Your task to perform on an android device: show emergency info Image 0: 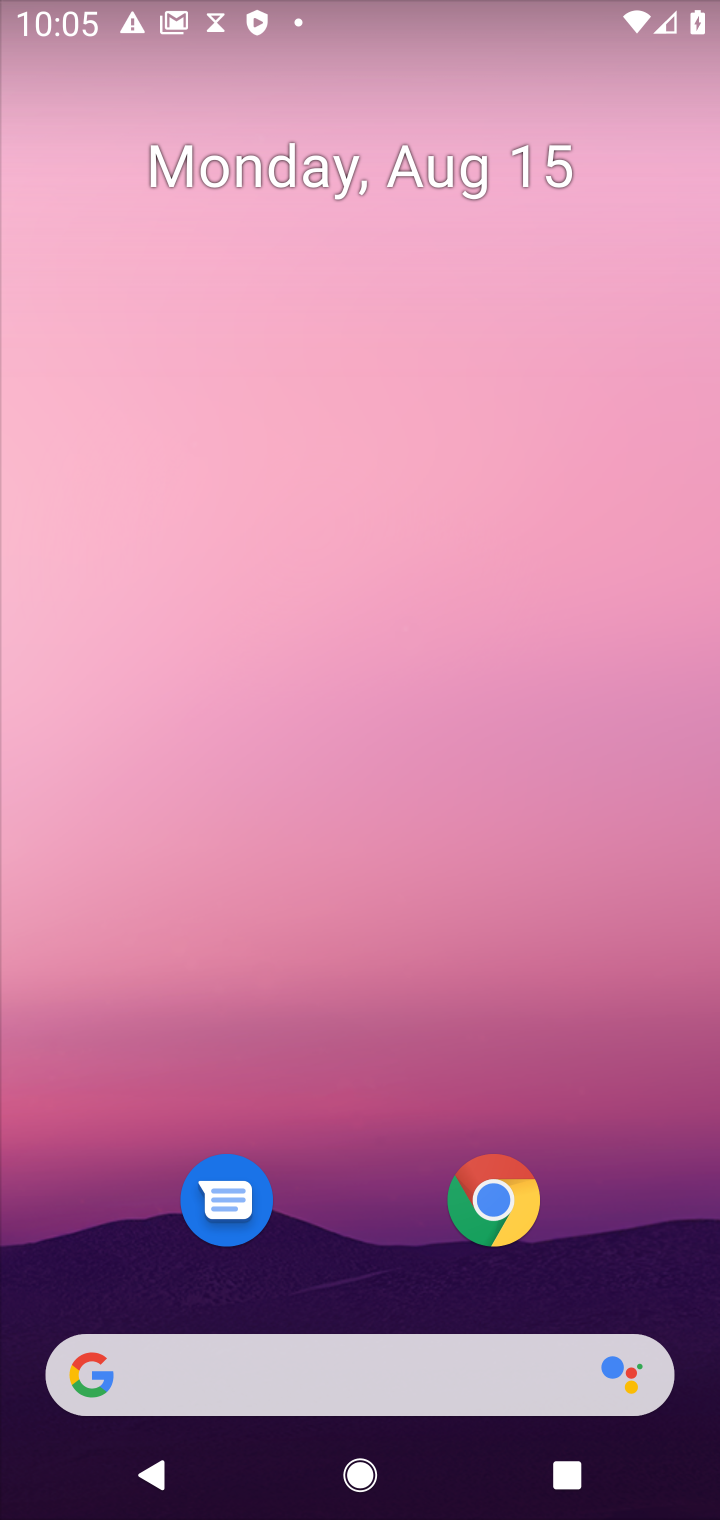
Step 0: drag from (364, 1258) to (386, 394)
Your task to perform on an android device: show emergency info Image 1: 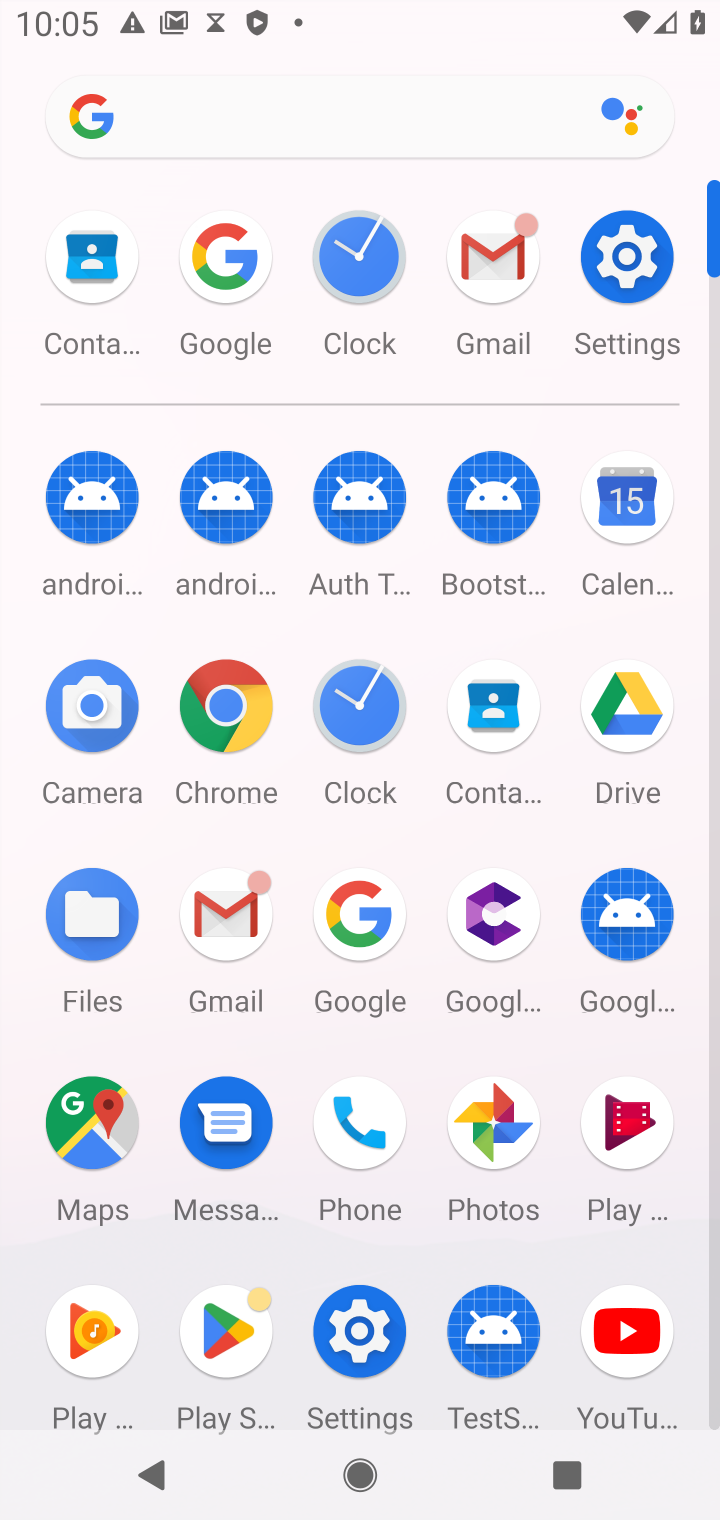
Step 1: click (633, 299)
Your task to perform on an android device: show emergency info Image 2: 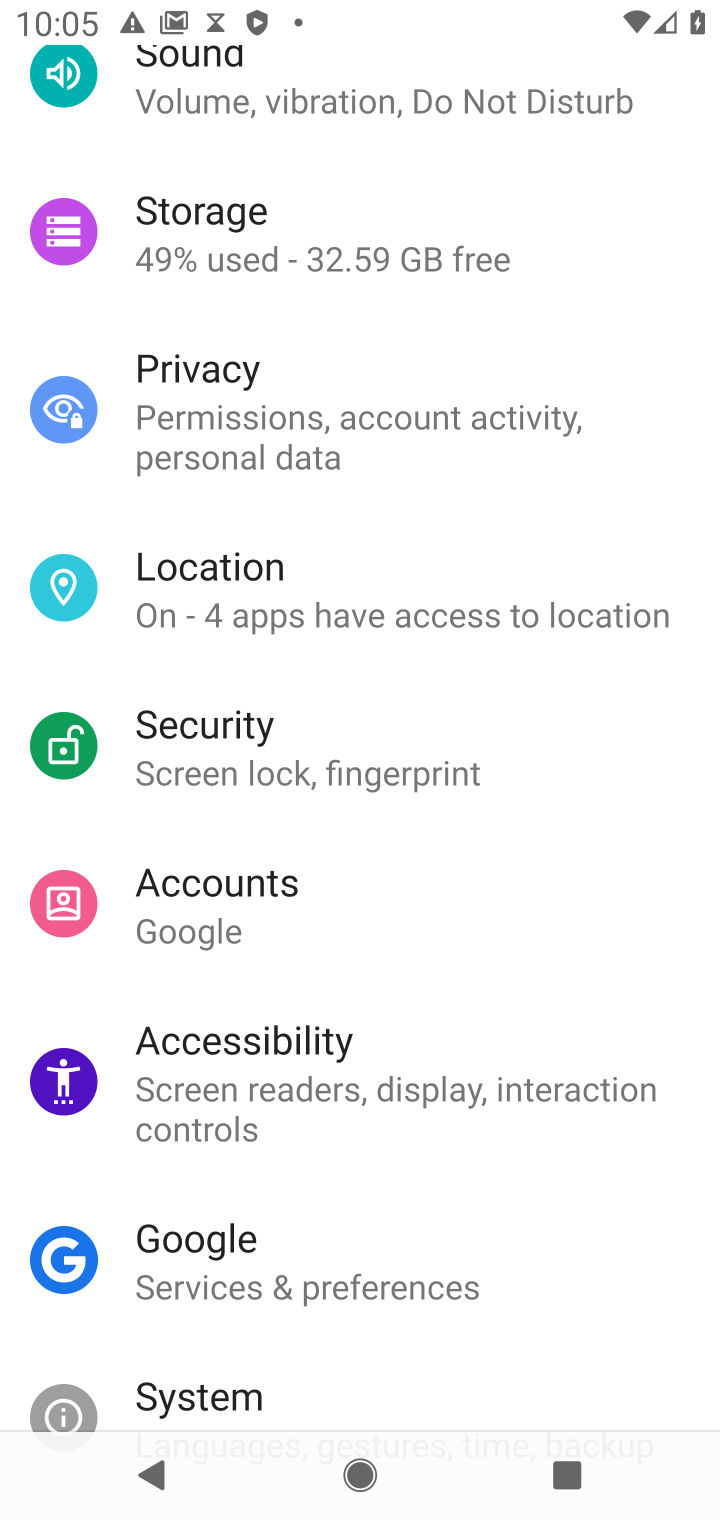
Step 2: drag from (318, 1320) to (318, 454)
Your task to perform on an android device: show emergency info Image 3: 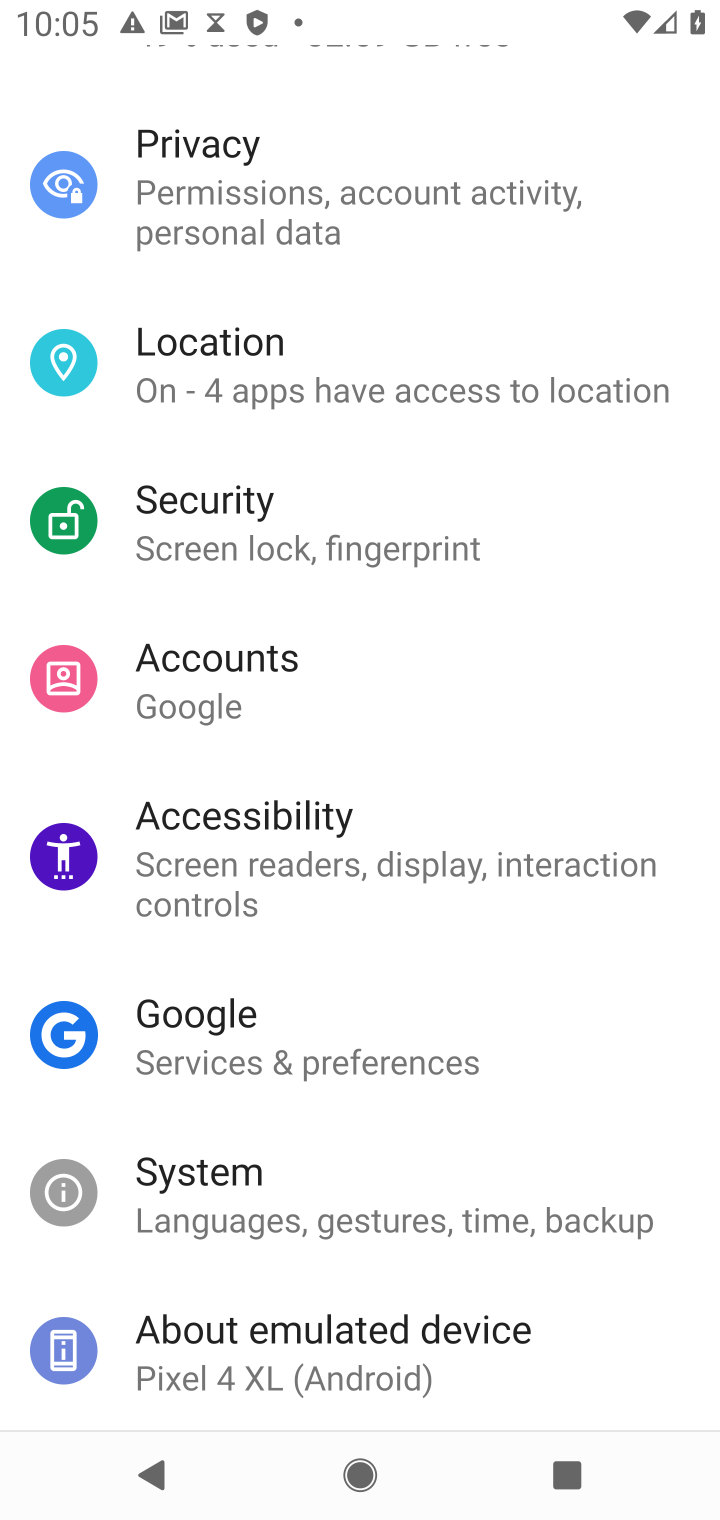
Step 3: click (329, 1330)
Your task to perform on an android device: show emergency info Image 4: 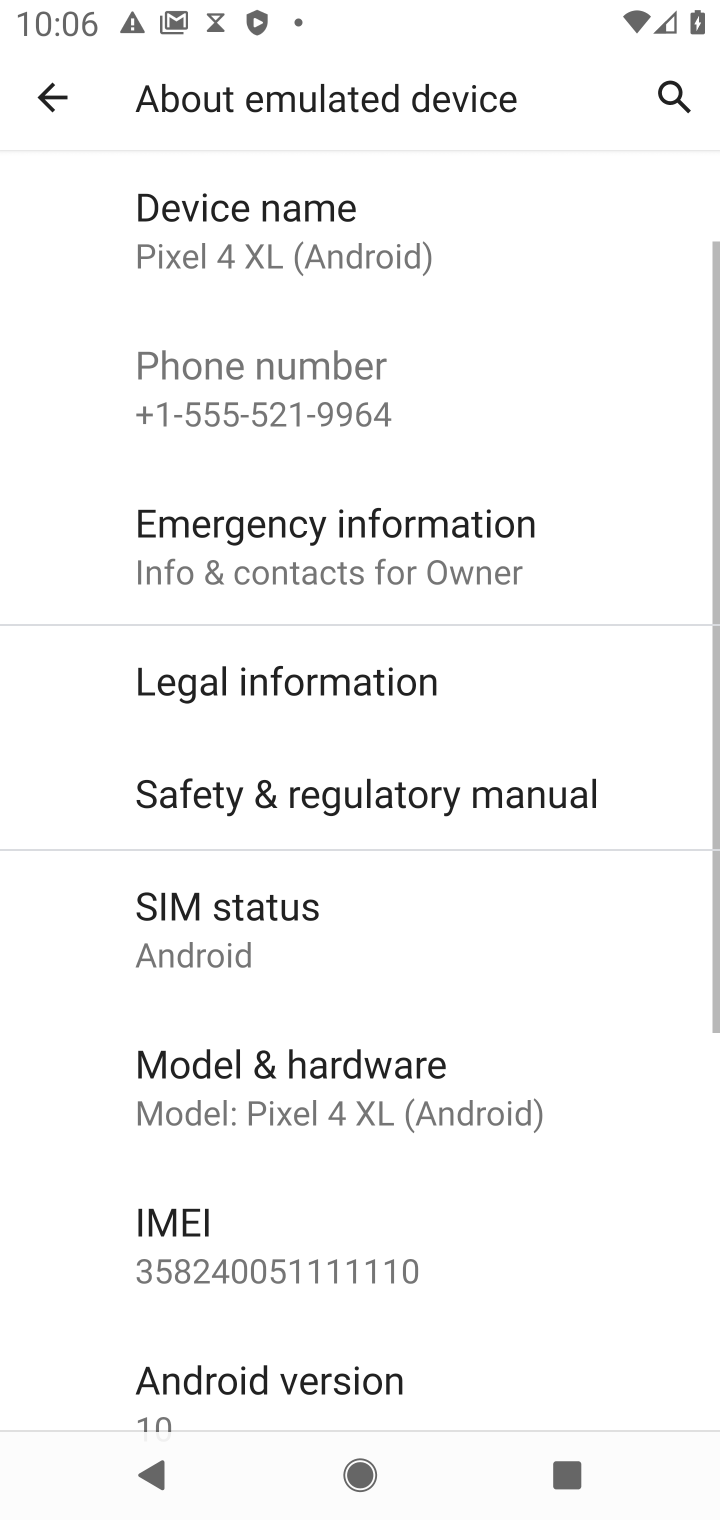
Step 4: click (355, 564)
Your task to perform on an android device: show emergency info Image 5: 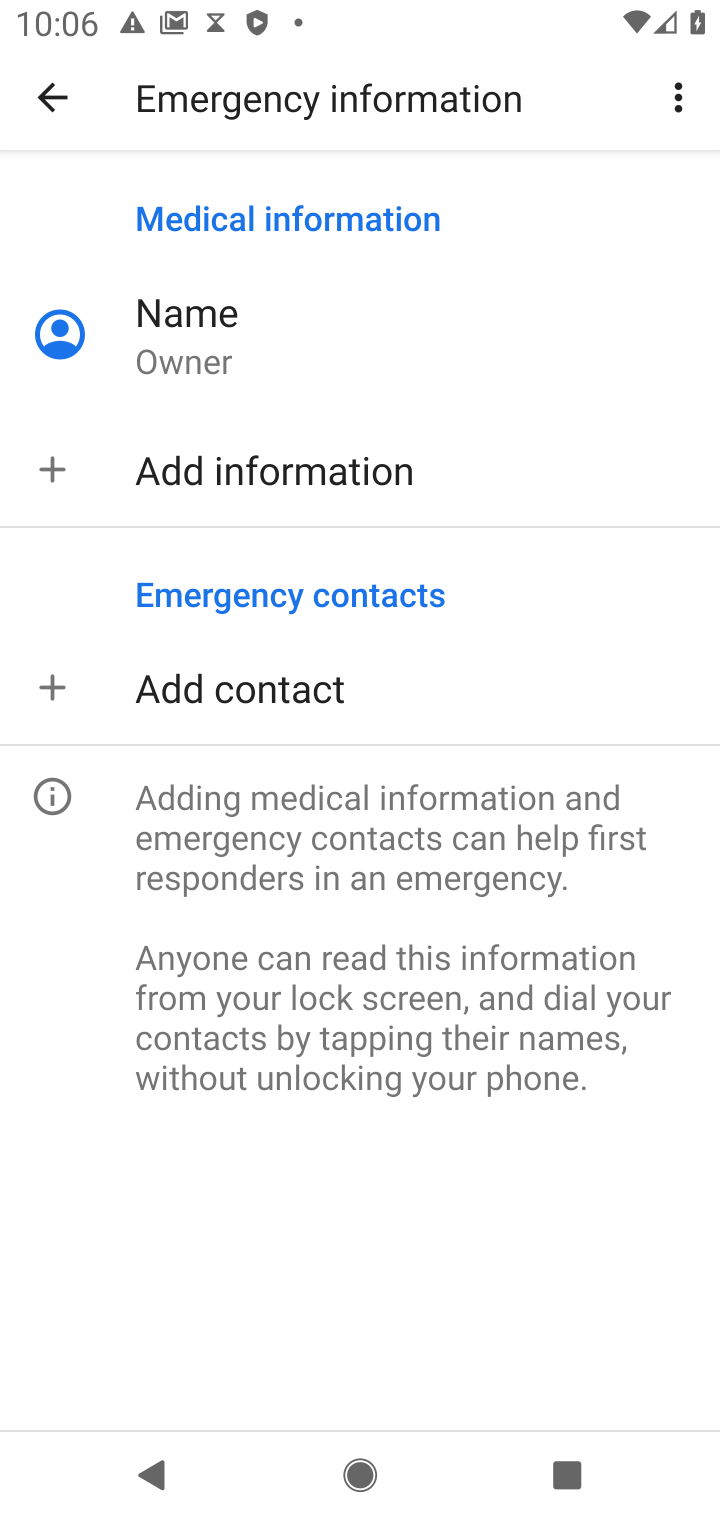
Step 5: task complete